Your task to perform on an android device: Go to CNN.com Image 0: 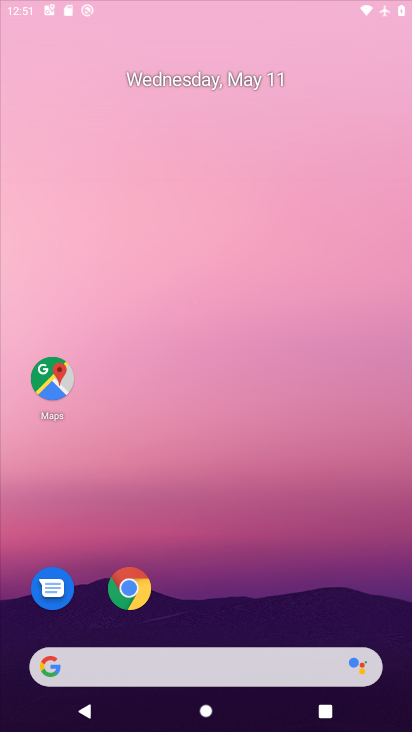
Step 0: drag from (173, 643) to (150, 244)
Your task to perform on an android device: Go to CNN.com Image 1: 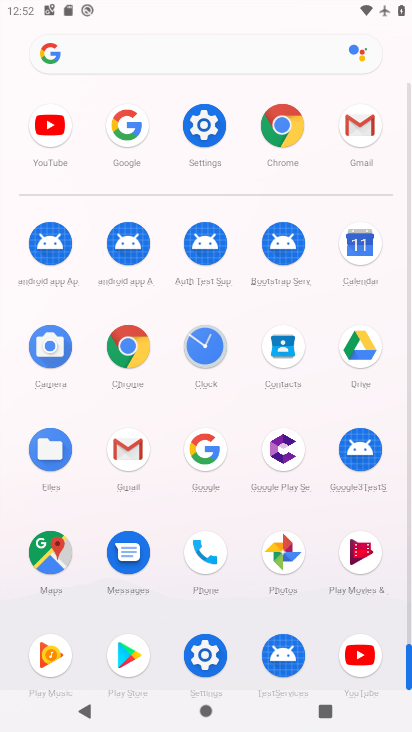
Step 1: click (199, 461)
Your task to perform on an android device: Go to CNN.com Image 2: 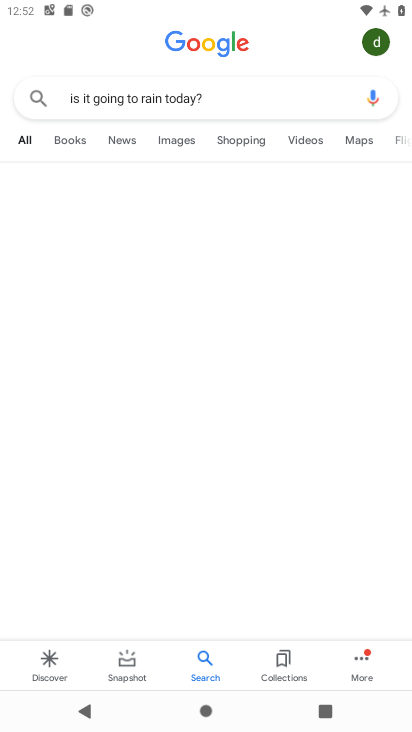
Step 2: click (162, 95)
Your task to perform on an android device: Go to CNN.com Image 3: 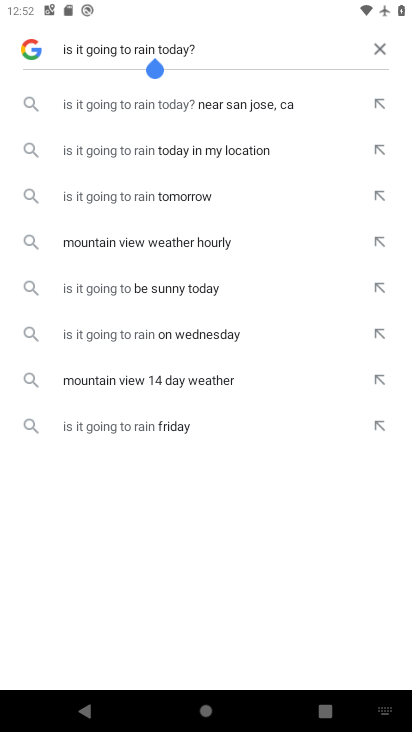
Step 3: click (388, 42)
Your task to perform on an android device: Go to CNN.com Image 4: 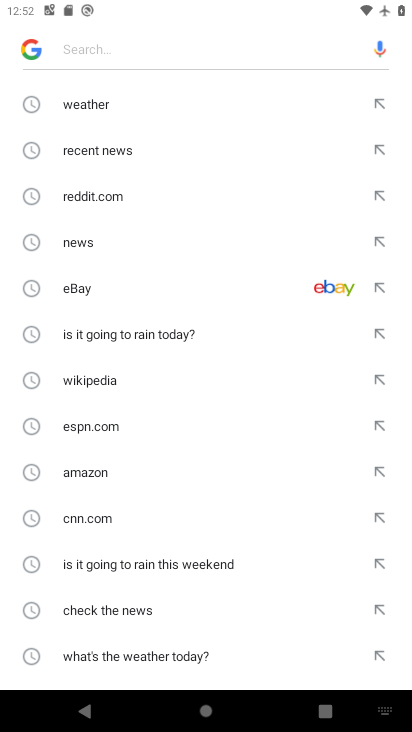
Step 4: click (108, 516)
Your task to perform on an android device: Go to CNN.com Image 5: 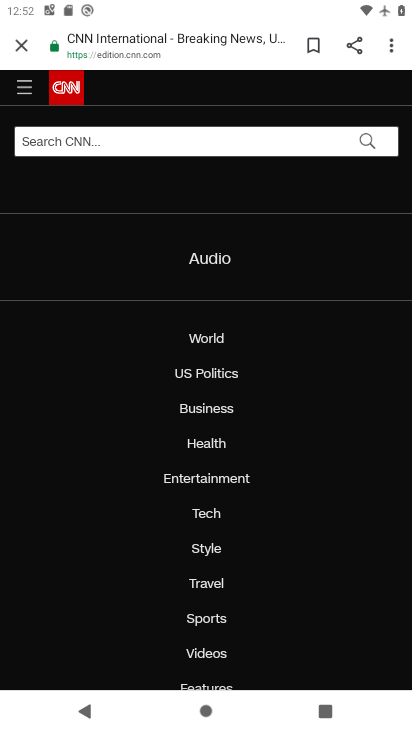
Step 5: task complete